Your task to perform on an android device: turn on airplane mode Image 0: 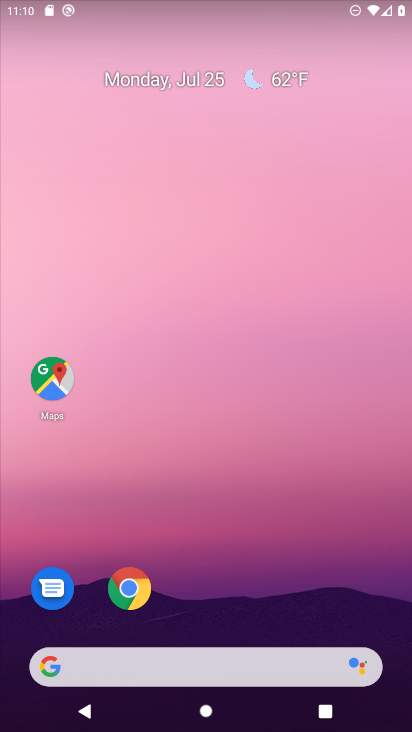
Step 0: drag from (360, 11) to (363, 481)
Your task to perform on an android device: turn on airplane mode Image 1: 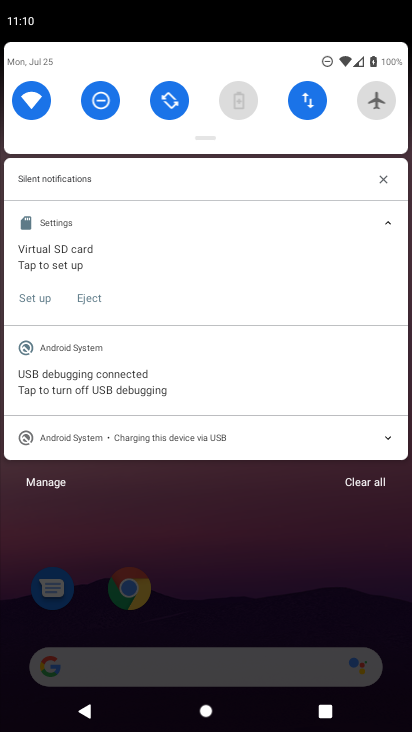
Step 1: click (377, 100)
Your task to perform on an android device: turn on airplane mode Image 2: 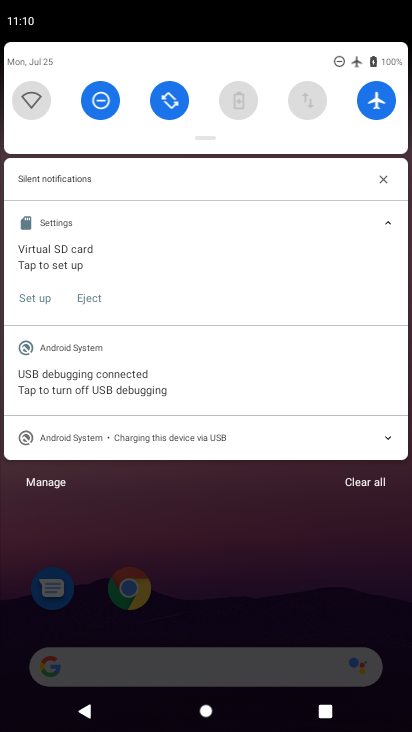
Step 2: task complete